Your task to perform on an android device: make emails show in primary in the gmail app Image 0: 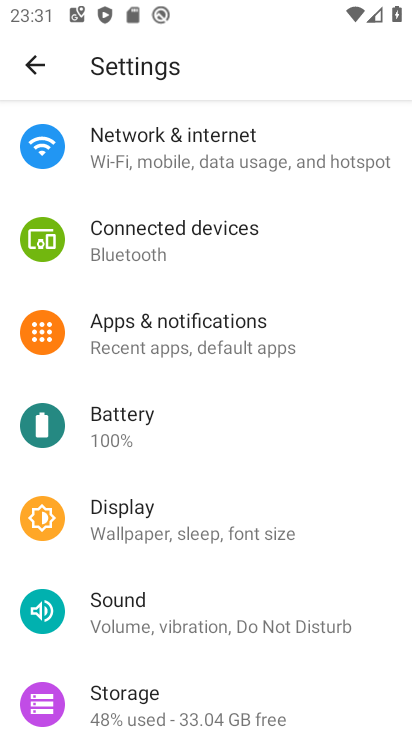
Step 0: press home button
Your task to perform on an android device: make emails show in primary in the gmail app Image 1: 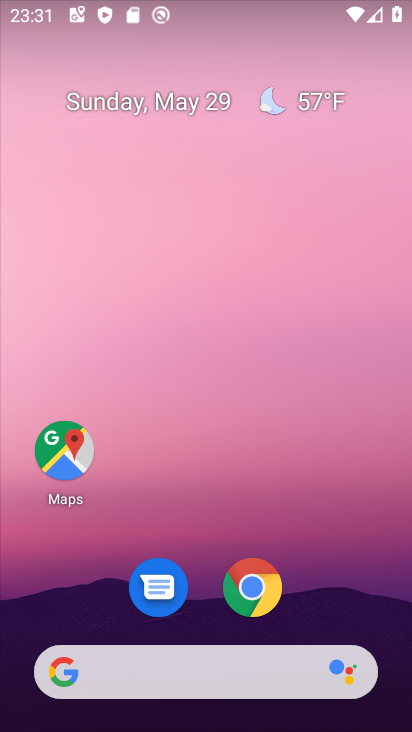
Step 1: drag from (378, 598) to (307, 101)
Your task to perform on an android device: make emails show in primary in the gmail app Image 2: 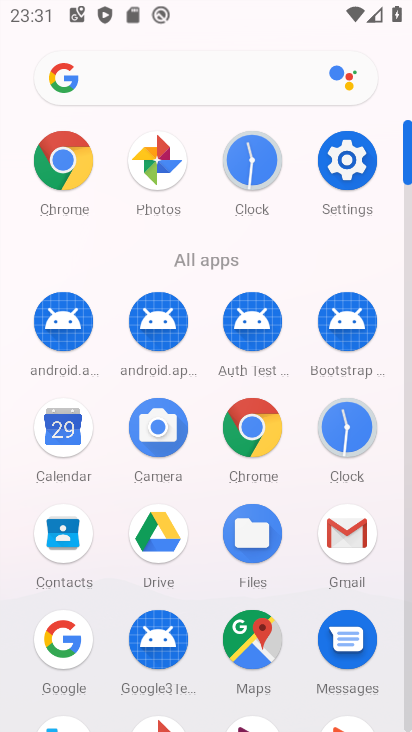
Step 2: click (344, 524)
Your task to perform on an android device: make emails show in primary in the gmail app Image 3: 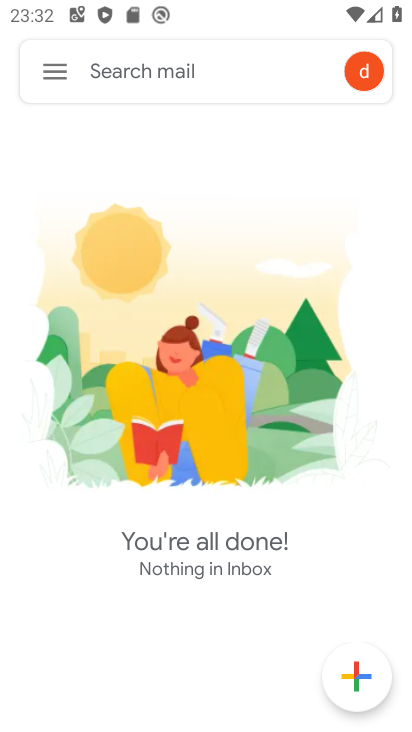
Step 3: click (60, 76)
Your task to perform on an android device: make emails show in primary in the gmail app Image 4: 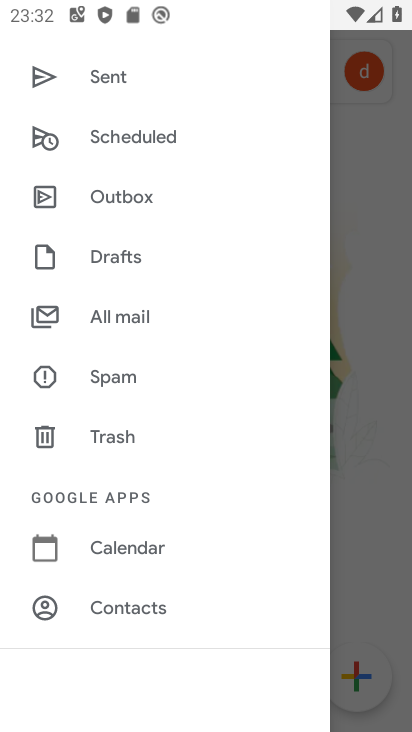
Step 4: drag from (126, 670) to (96, 246)
Your task to perform on an android device: make emails show in primary in the gmail app Image 5: 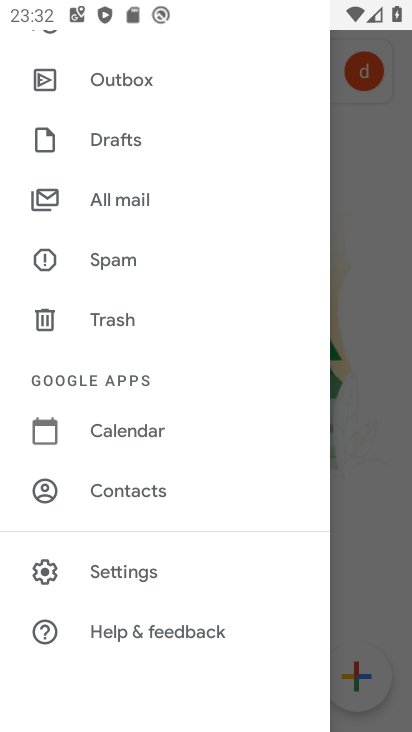
Step 5: click (138, 568)
Your task to perform on an android device: make emails show in primary in the gmail app Image 6: 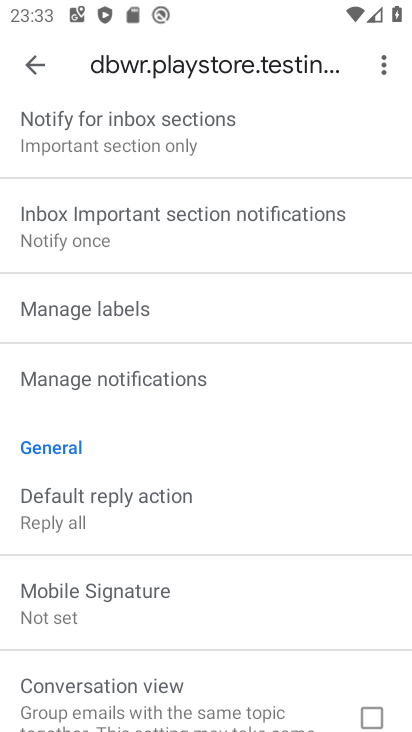
Step 6: drag from (221, 281) to (257, 698)
Your task to perform on an android device: make emails show in primary in the gmail app Image 7: 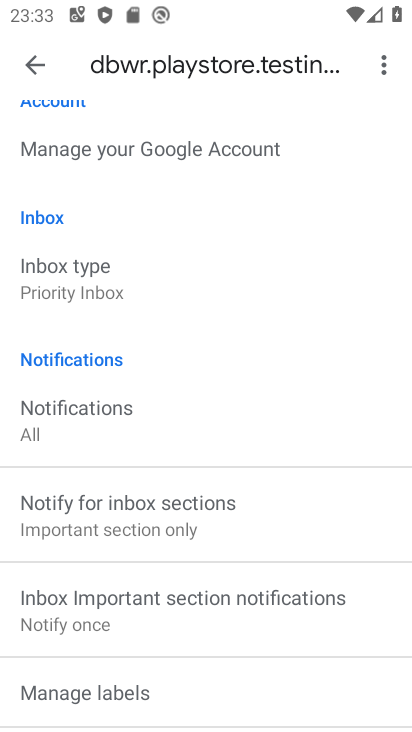
Step 7: click (171, 285)
Your task to perform on an android device: make emails show in primary in the gmail app Image 8: 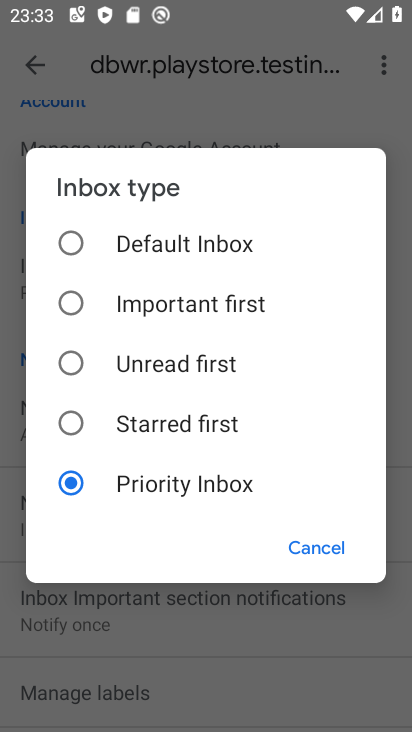
Step 8: click (167, 250)
Your task to perform on an android device: make emails show in primary in the gmail app Image 9: 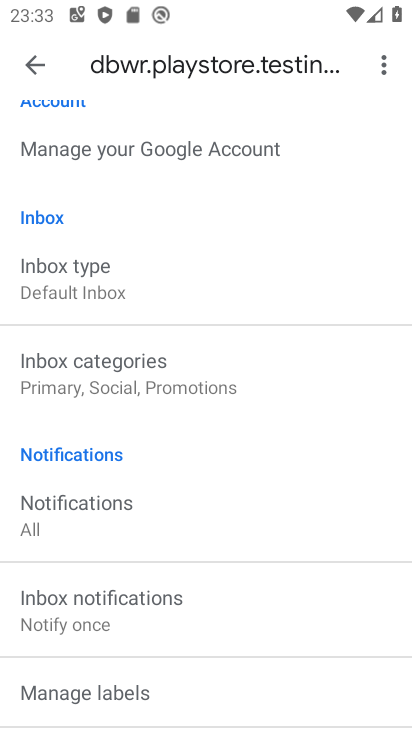
Step 9: task complete